Your task to perform on an android device: star an email in the gmail app Image 0: 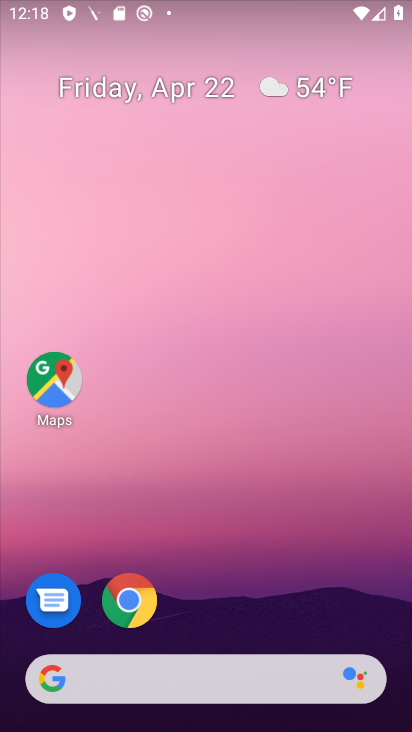
Step 0: drag from (384, 627) to (291, 204)
Your task to perform on an android device: star an email in the gmail app Image 1: 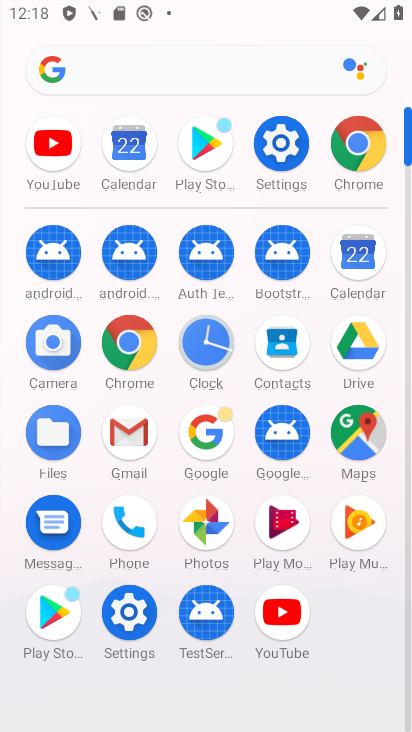
Step 1: click (122, 435)
Your task to perform on an android device: star an email in the gmail app Image 2: 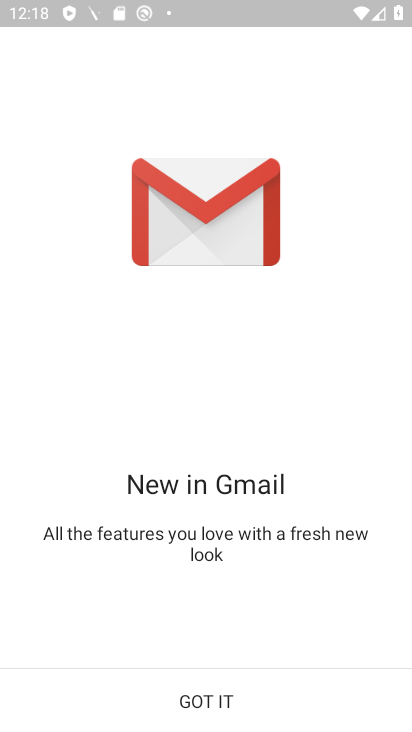
Step 2: click (210, 697)
Your task to perform on an android device: star an email in the gmail app Image 3: 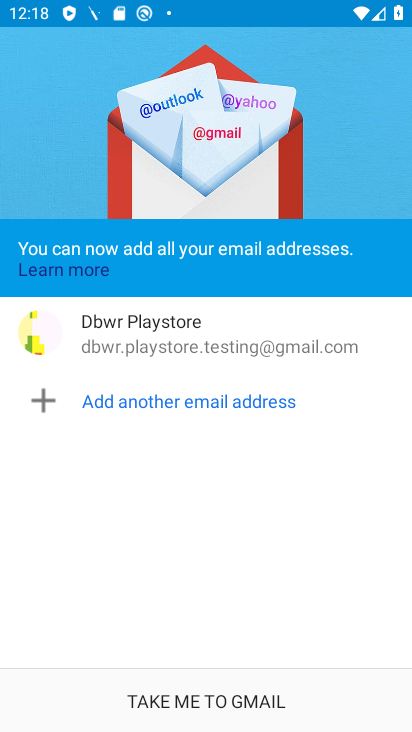
Step 3: click (210, 697)
Your task to perform on an android device: star an email in the gmail app Image 4: 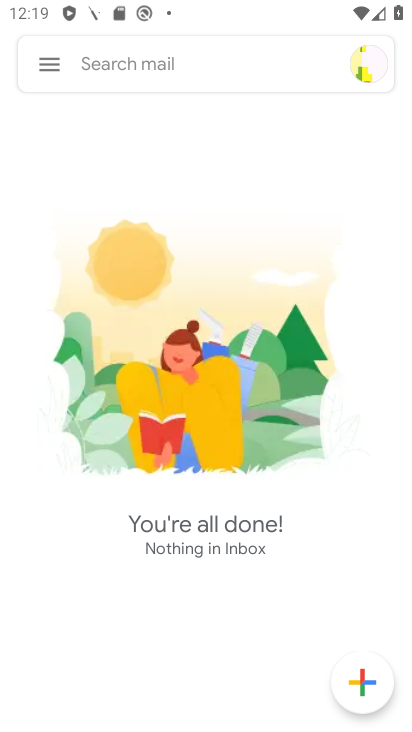
Step 4: click (48, 67)
Your task to perform on an android device: star an email in the gmail app Image 5: 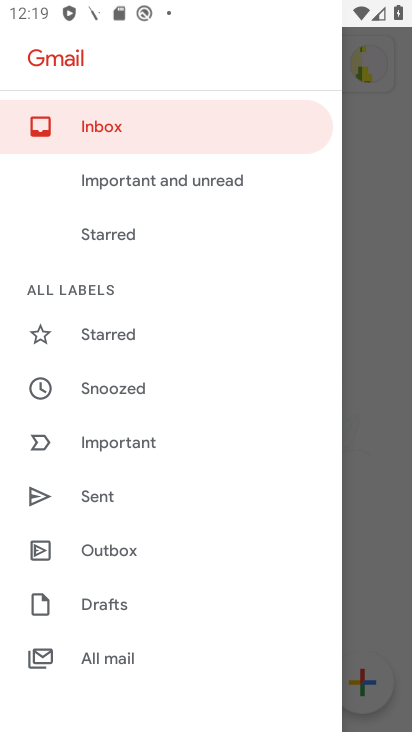
Step 5: click (100, 132)
Your task to perform on an android device: star an email in the gmail app Image 6: 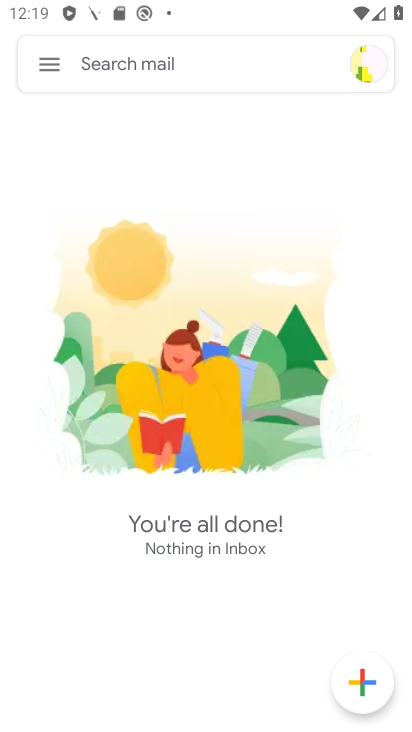
Step 6: task complete